Your task to perform on an android device: Go to sound settings Image 0: 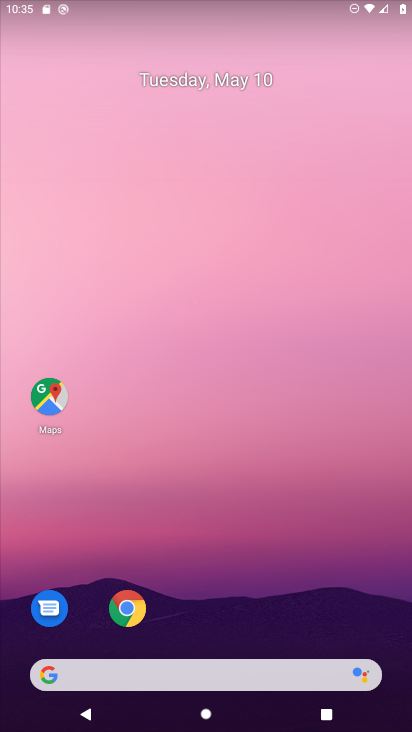
Step 0: drag from (255, 479) to (277, 199)
Your task to perform on an android device: Go to sound settings Image 1: 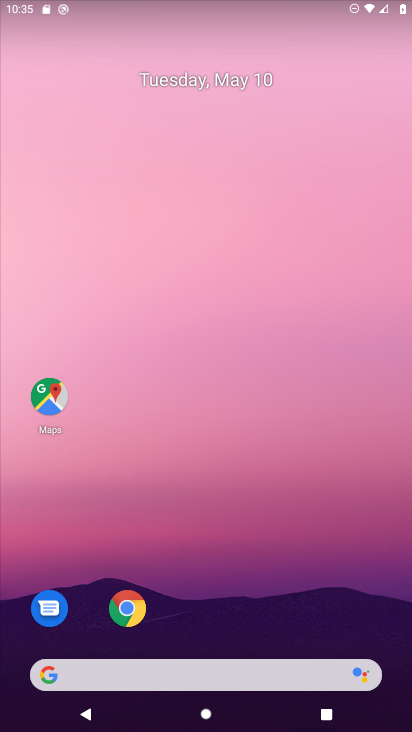
Step 1: drag from (211, 617) to (299, 178)
Your task to perform on an android device: Go to sound settings Image 2: 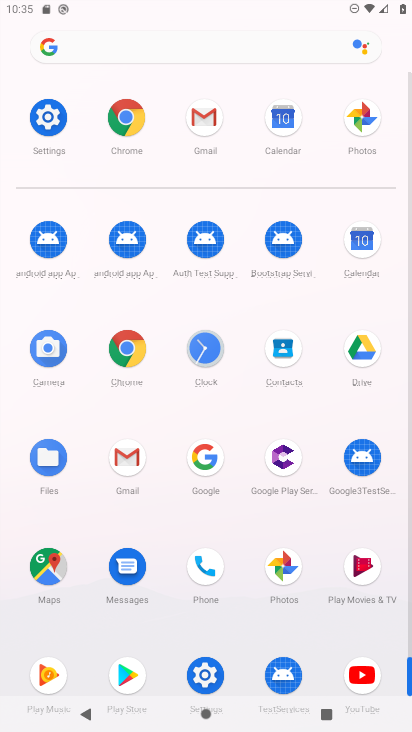
Step 2: click (38, 108)
Your task to perform on an android device: Go to sound settings Image 3: 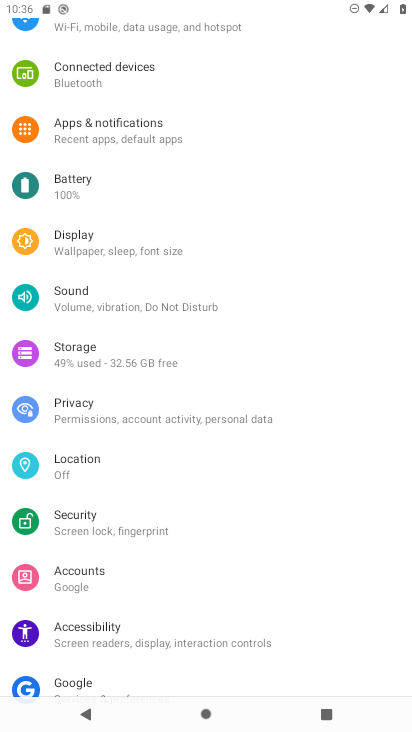
Step 3: click (101, 294)
Your task to perform on an android device: Go to sound settings Image 4: 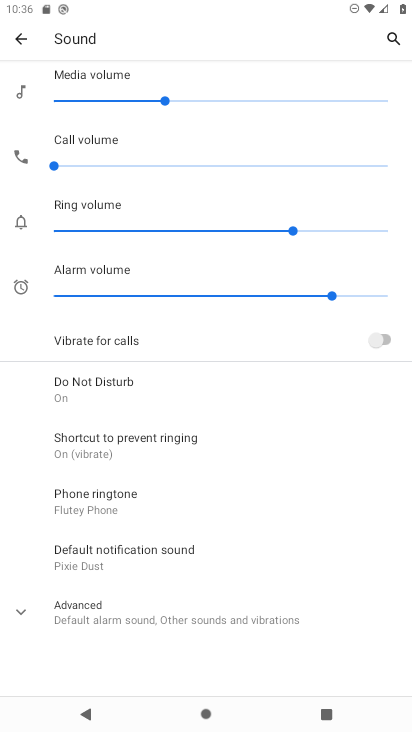
Step 4: task complete